Your task to perform on an android device: turn off picture-in-picture Image 0: 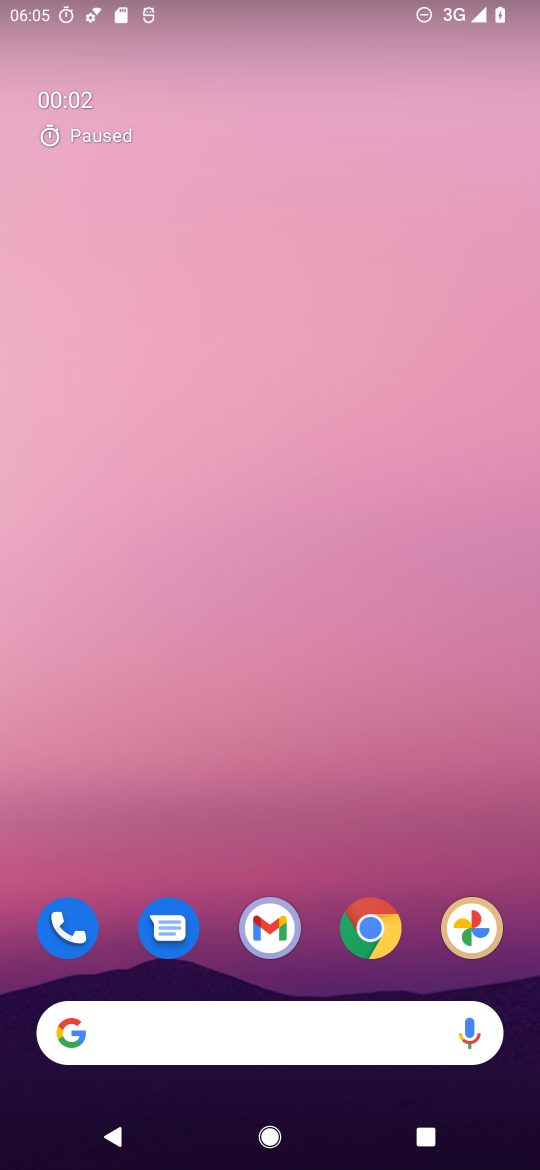
Step 0: click (376, 915)
Your task to perform on an android device: turn off picture-in-picture Image 1: 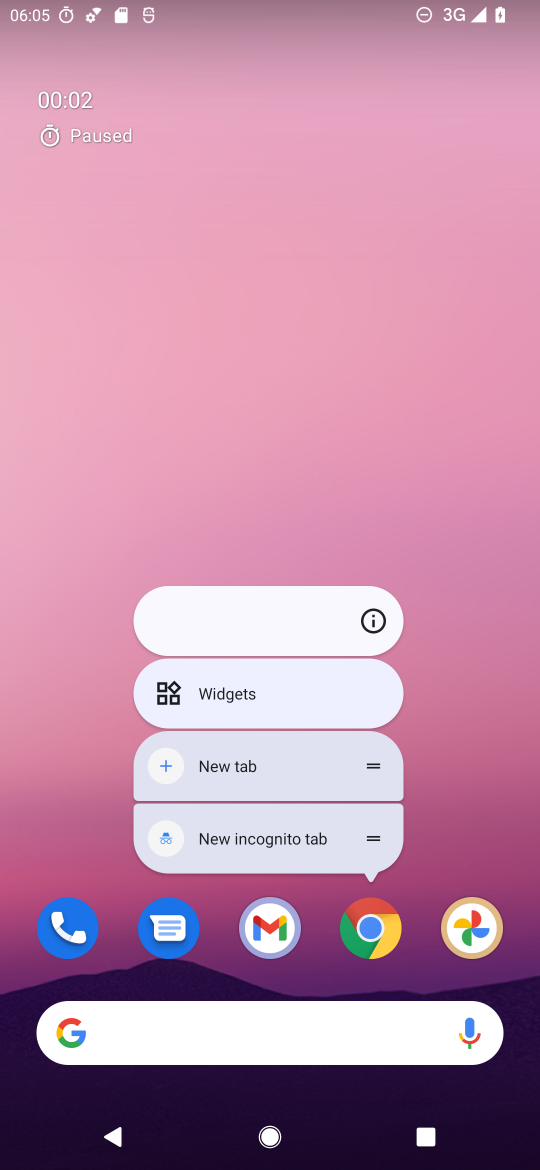
Step 1: click (382, 621)
Your task to perform on an android device: turn off picture-in-picture Image 2: 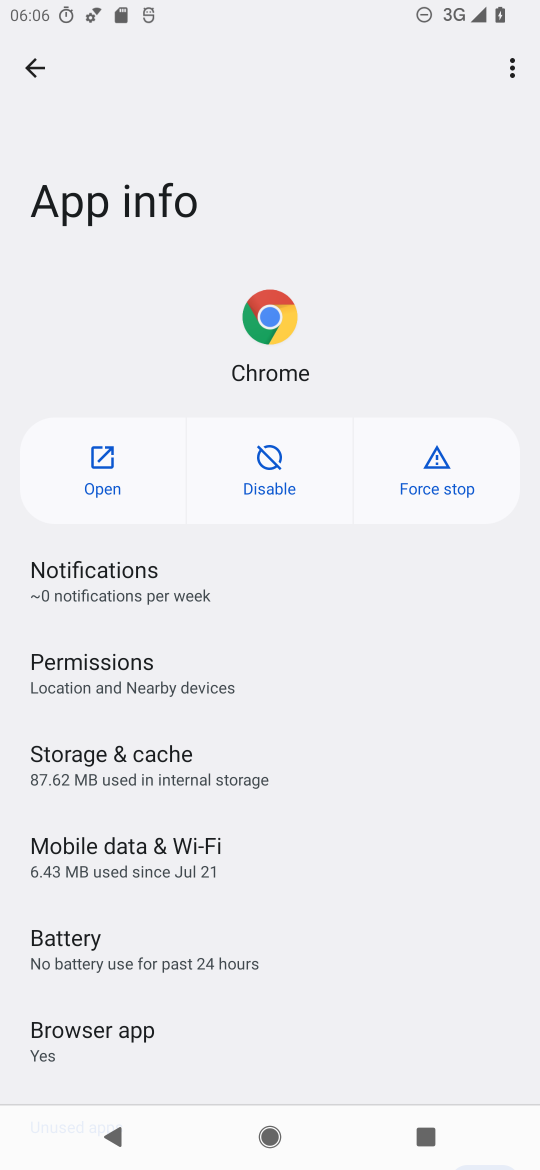
Step 2: drag from (408, 910) to (355, 77)
Your task to perform on an android device: turn off picture-in-picture Image 3: 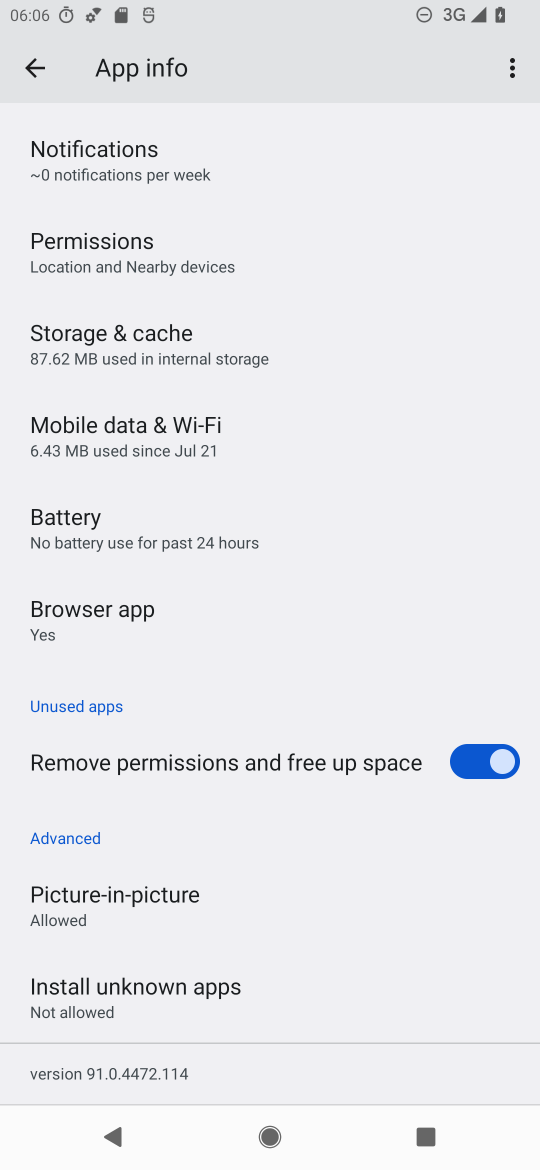
Step 3: click (131, 884)
Your task to perform on an android device: turn off picture-in-picture Image 4: 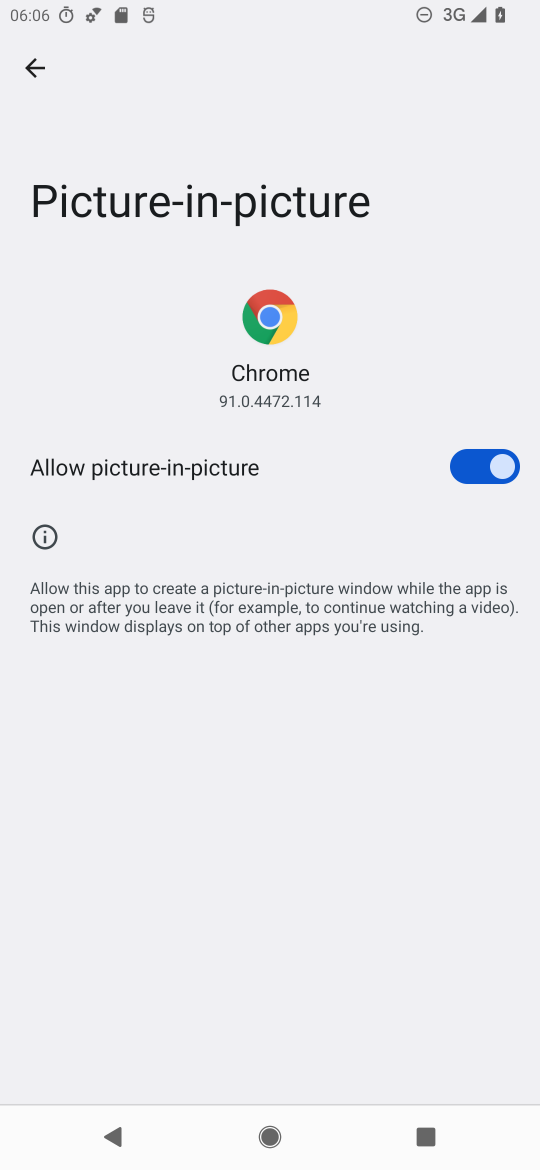
Step 4: click (486, 466)
Your task to perform on an android device: turn off picture-in-picture Image 5: 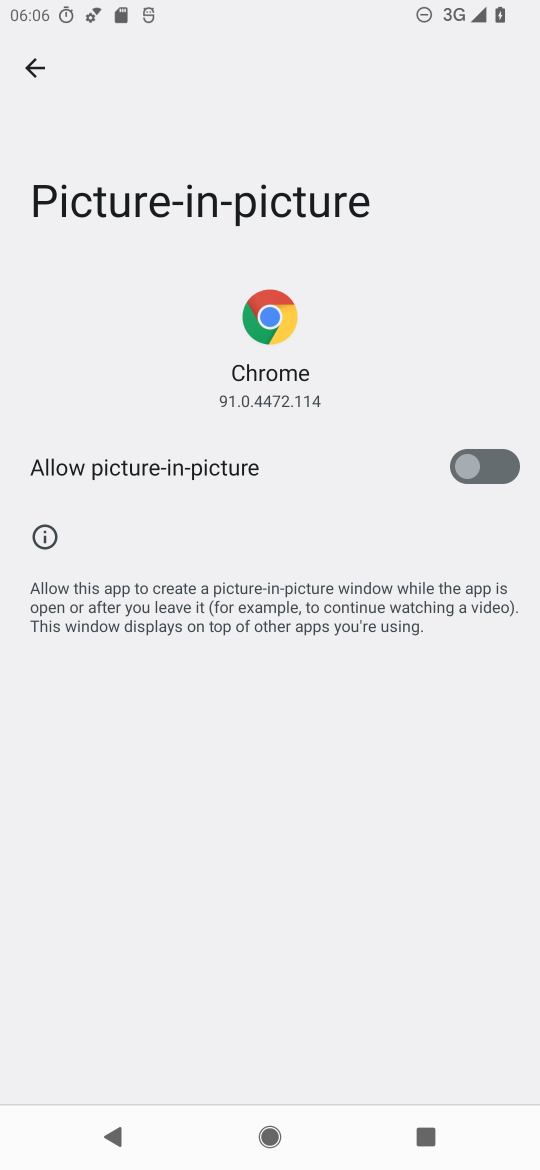
Step 5: task complete